Your task to perform on an android device: Open maps Image 0: 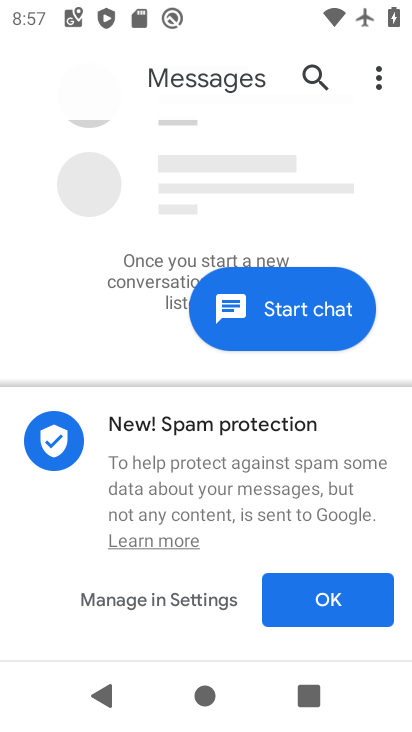
Step 0: press home button
Your task to perform on an android device: Open maps Image 1: 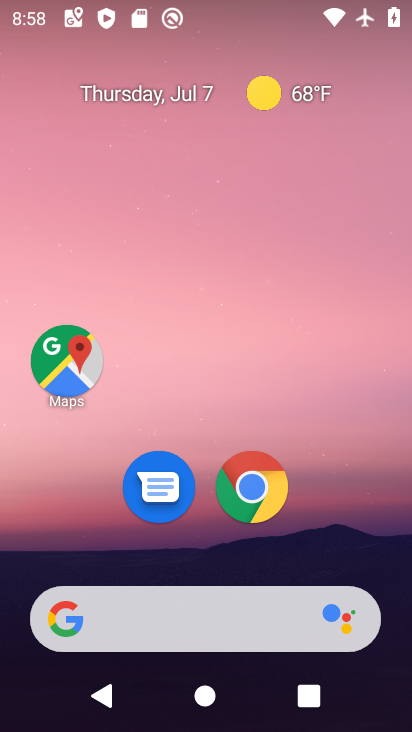
Step 1: drag from (219, 550) to (410, 6)
Your task to perform on an android device: Open maps Image 2: 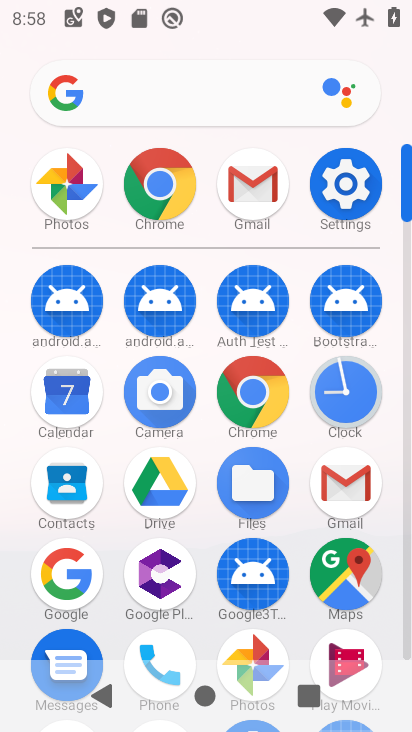
Step 2: click (359, 563)
Your task to perform on an android device: Open maps Image 3: 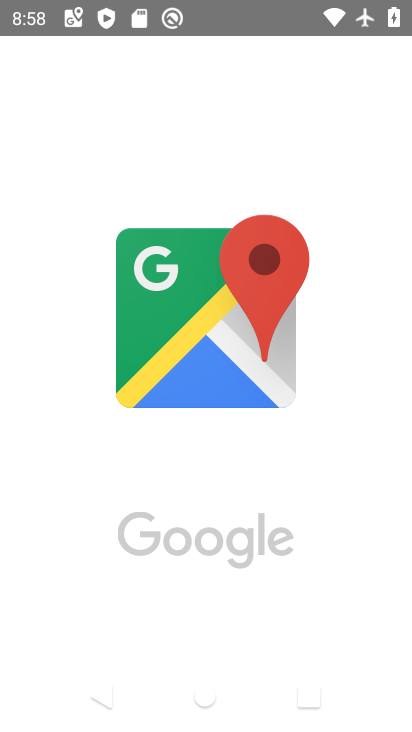
Step 3: task complete